Your task to perform on an android device: Search for Italian restaurants on Maps Image 0: 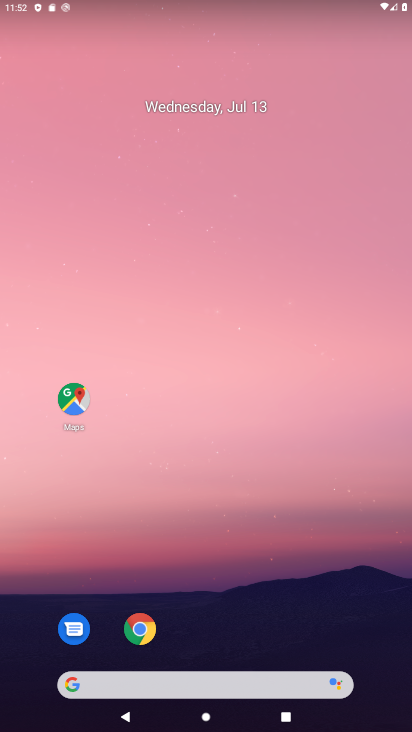
Step 0: click (67, 387)
Your task to perform on an android device: Search for Italian restaurants on Maps Image 1: 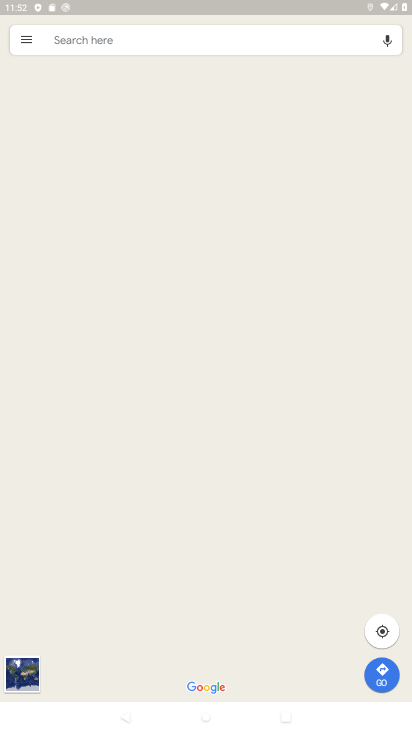
Step 1: click (187, 39)
Your task to perform on an android device: Search for Italian restaurants on Maps Image 2: 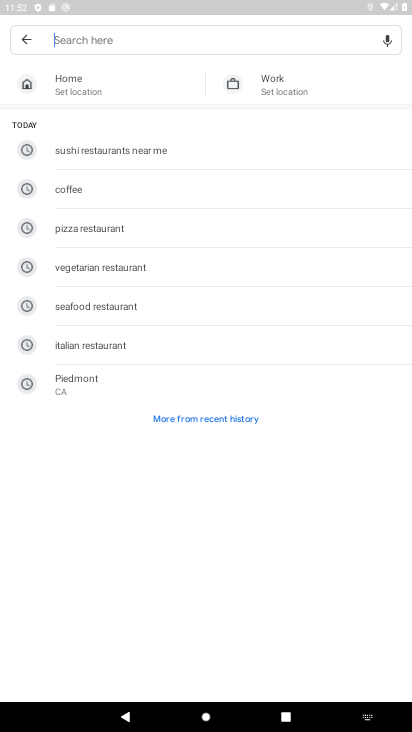
Step 2: click (319, 339)
Your task to perform on an android device: Search for Italian restaurants on Maps Image 3: 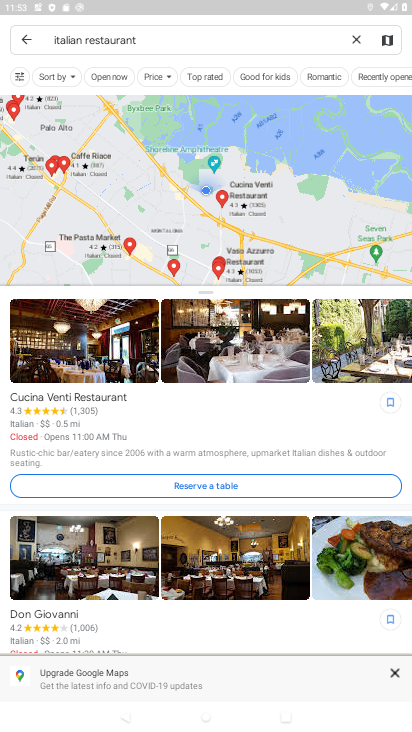
Step 3: task complete